Your task to perform on an android device: Go to Maps Image 0: 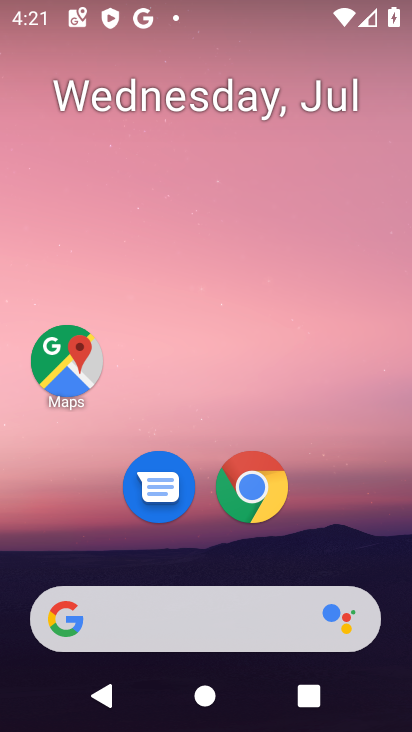
Step 0: click (77, 362)
Your task to perform on an android device: Go to Maps Image 1: 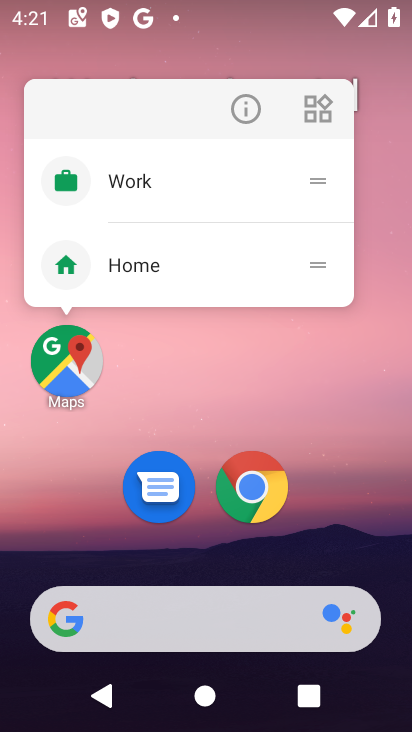
Step 1: click (74, 363)
Your task to perform on an android device: Go to Maps Image 2: 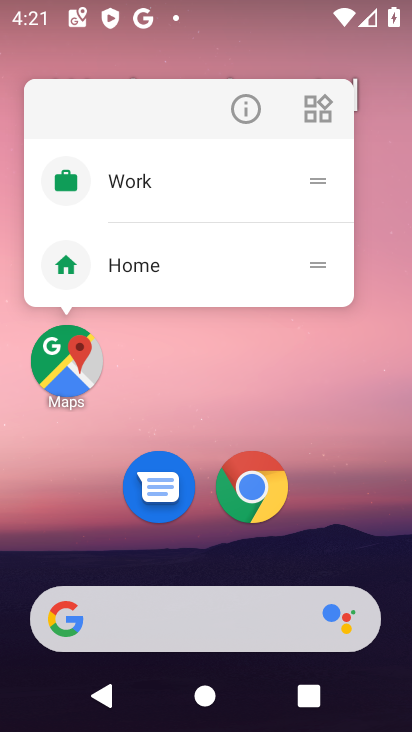
Step 2: click (71, 356)
Your task to perform on an android device: Go to Maps Image 3: 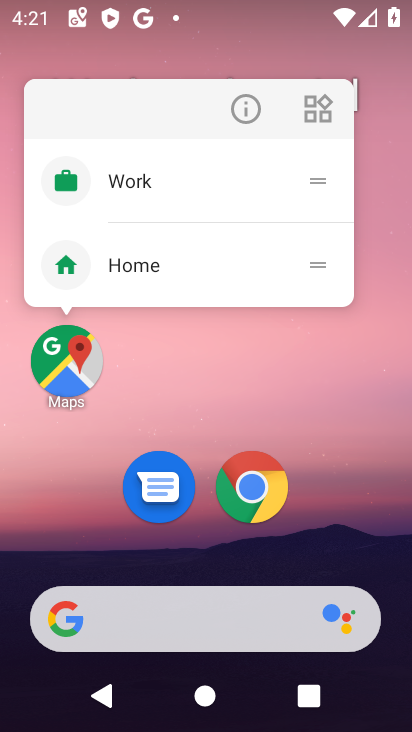
Step 3: click (64, 360)
Your task to perform on an android device: Go to Maps Image 4: 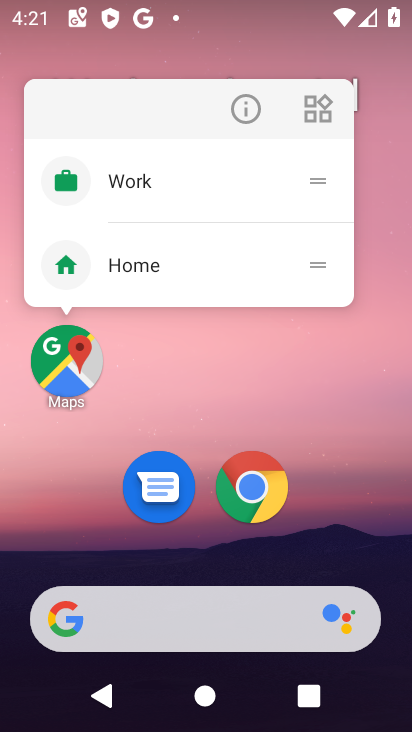
Step 4: click (64, 360)
Your task to perform on an android device: Go to Maps Image 5: 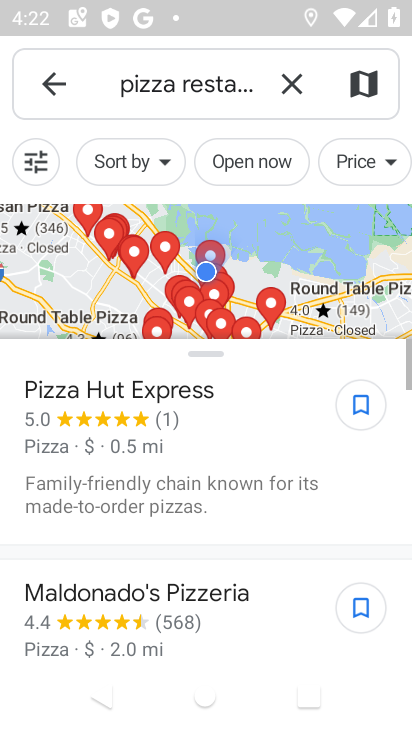
Step 5: task complete